Your task to perform on an android device: Open Google Maps and go to "Timeline" Image 0: 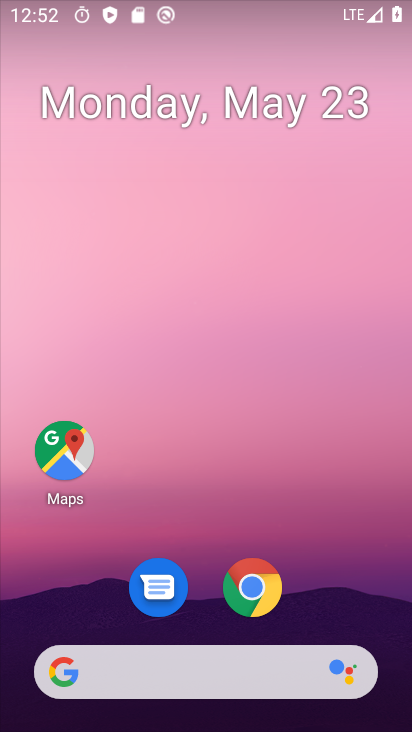
Step 0: click (71, 453)
Your task to perform on an android device: Open Google Maps and go to "Timeline" Image 1: 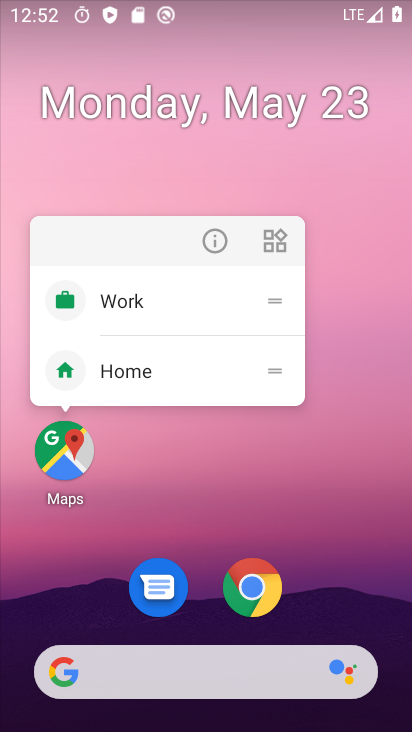
Step 1: click (65, 446)
Your task to perform on an android device: Open Google Maps and go to "Timeline" Image 2: 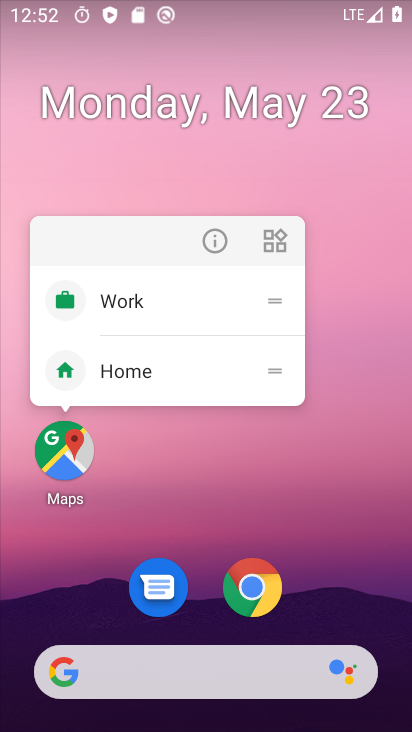
Step 2: click (65, 446)
Your task to perform on an android device: Open Google Maps and go to "Timeline" Image 3: 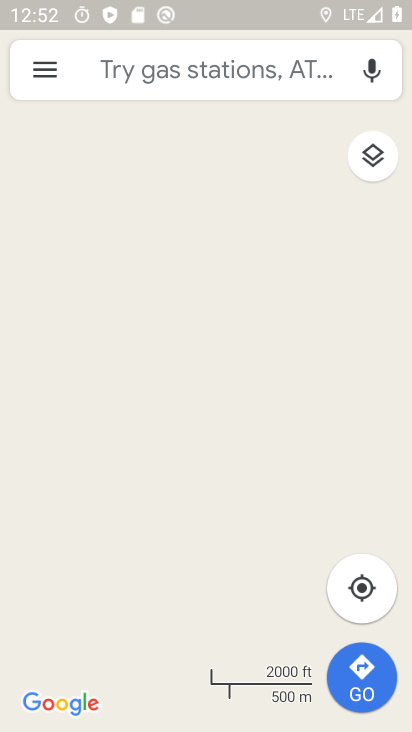
Step 3: click (51, 60)
Your task to perform on an android device: Open Google Maps and go to "Timeline" Image 4: 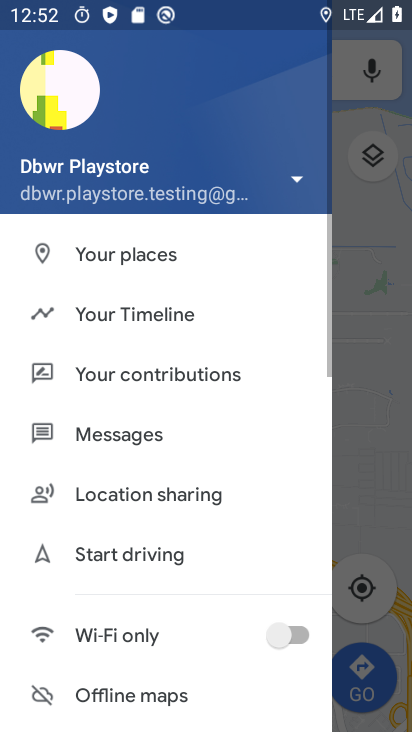
Step 4: click (160, 307)
Your task to perform on an android device: Open Google Maps and go to "Timeline" Image 5: 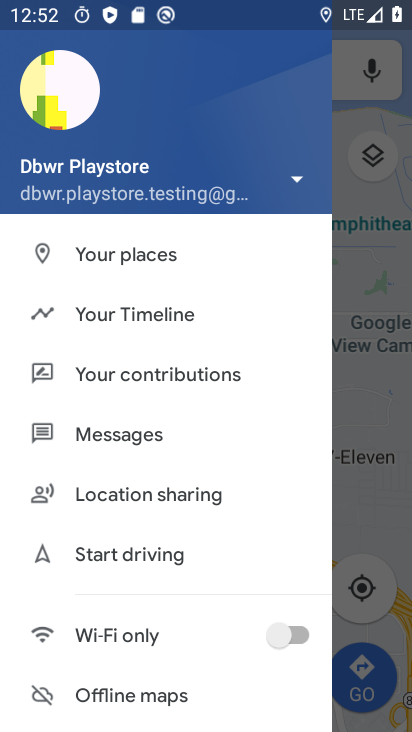
Step 5: click (149, 314)
Your task to perform on an android device: Open Google Maps and go to "Timeline" Image 6: 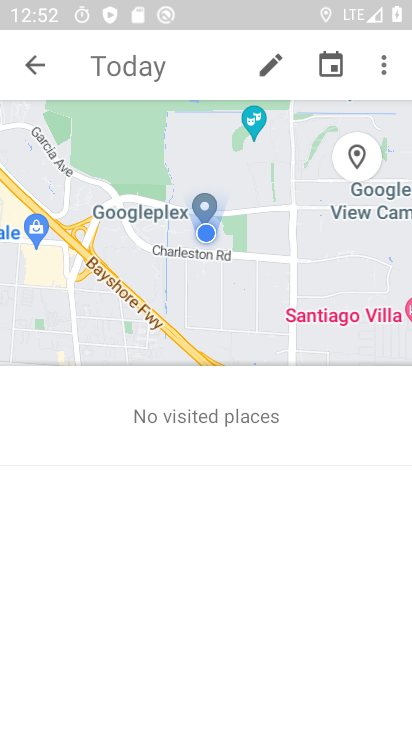
Step 6: task complete